Your task to perform on an android device: Check the weather Image 0: 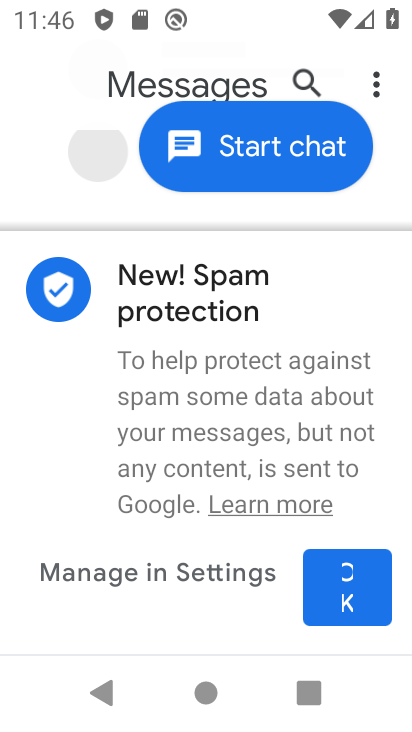
Step 0: press home button
Your task to perform on an android device: Check the weather Image 1: 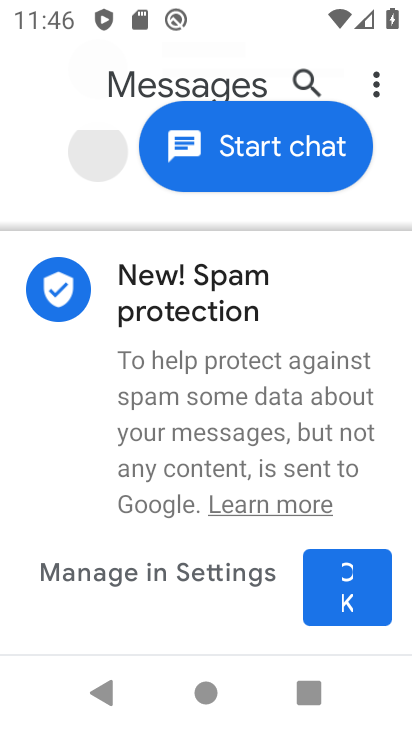
Step 1: press home button
Your task to perform on an android device: Check the weather Image 2: 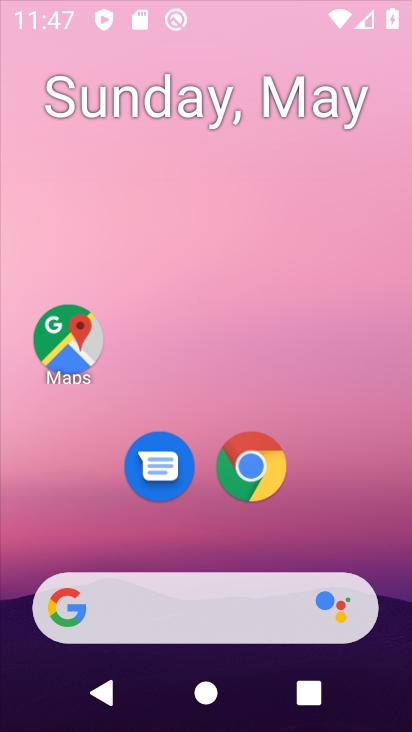
Step 2: press home button
Your task to perform on an android device: Check the weather Image 3: 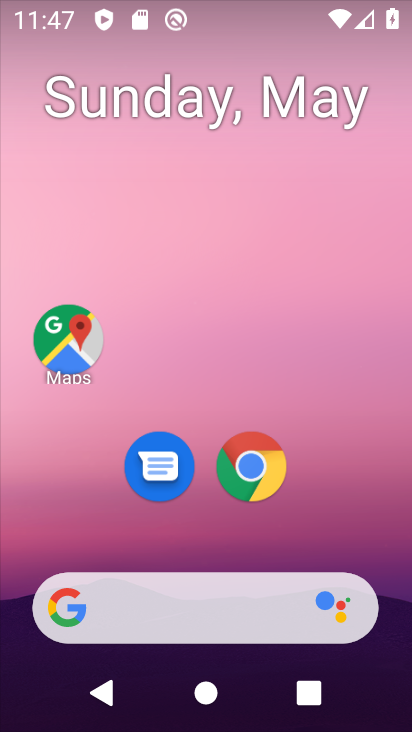
Step 3: click (254, 484)
Your task to perform on an android device: Check the weather Image 4: 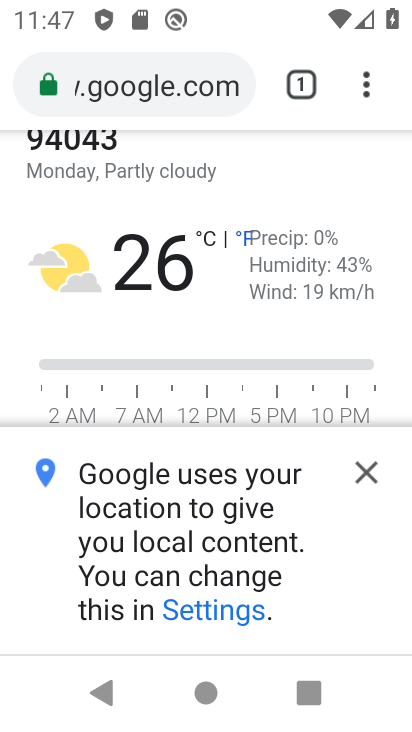
Step 4: click (103, 81)
Your task to perform on an android device: Check the weather Image 5: 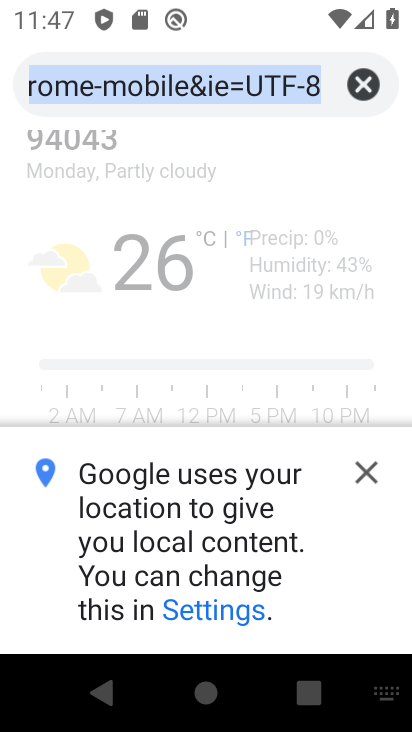
Step 5: click (356, 78)
Your task to perform on an android device: Check the weather Image 6: 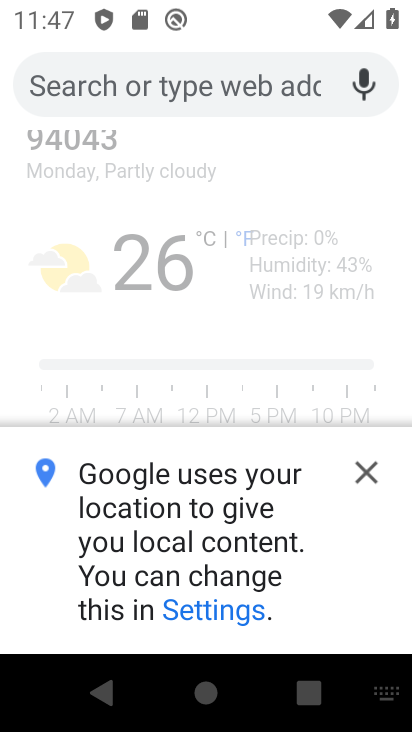
Step 6: type " weather"
Your task to perform on an android device: Check the weather Image 7: 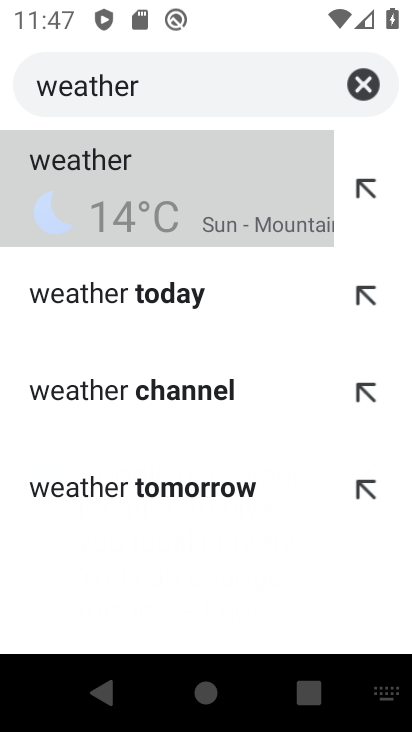
Step 7: click (93, 163)
Your task to perform on an android device: Check the weather Image 8: 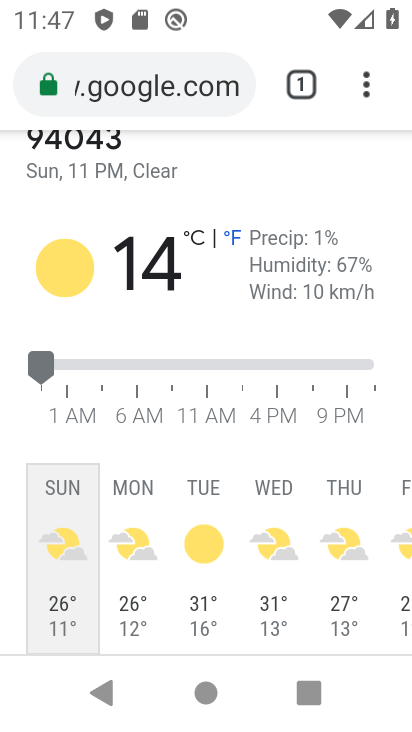
Step 8: task complete